Your task to perform on an android device: change the clock display to analog Image 0: 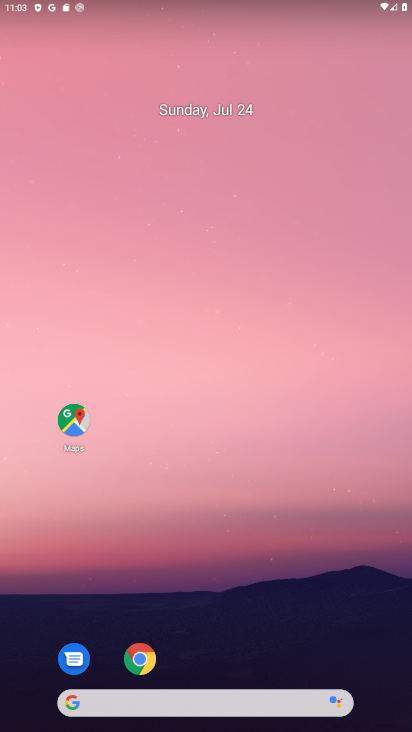
Step 0: drag from (267, 681) to (268, 6)
Your task to perform on an android device: change the clock display to analog Image 1: 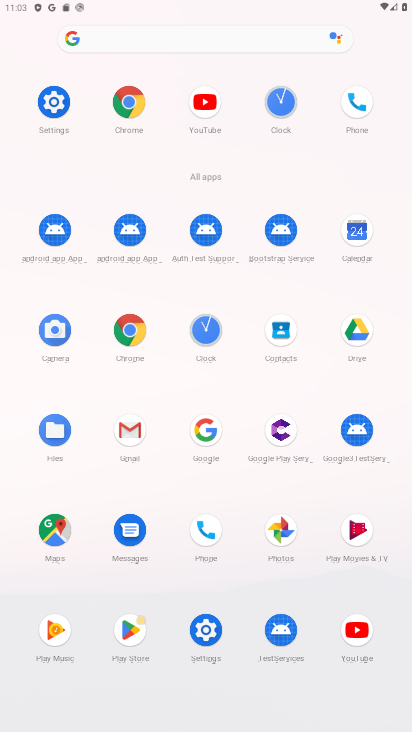
Step 1: click (199, 331)
Your task to perform on an android device: change the clock display to analog Image 2: 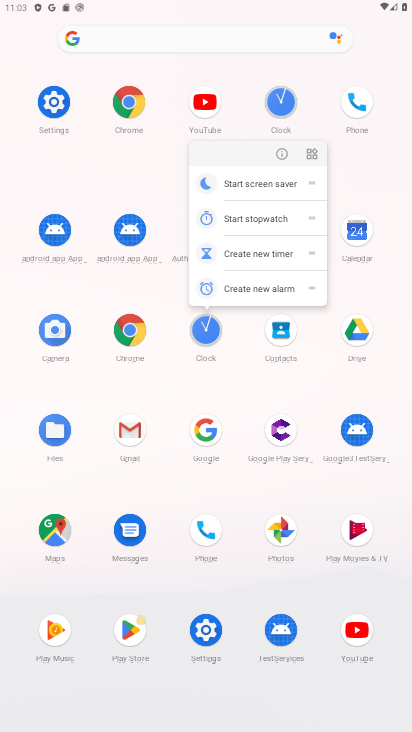
Step 2: click (293, 97)
Your task to perform on an android device: change the clock display to analog Image 3: 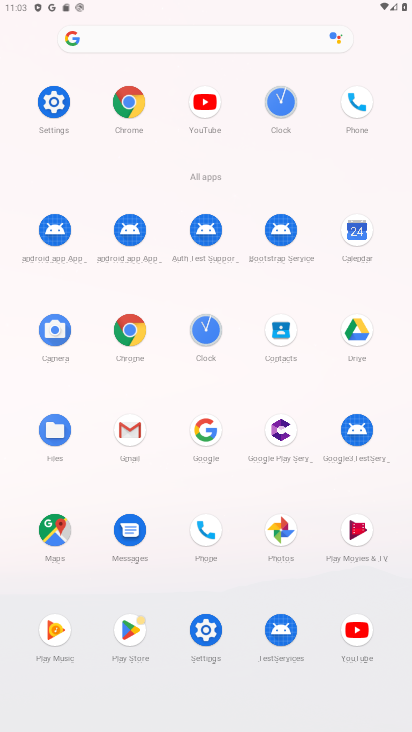
Step 3: click (295, 99)
Your task to perform on an android device: change the clock display to analog Image 4: 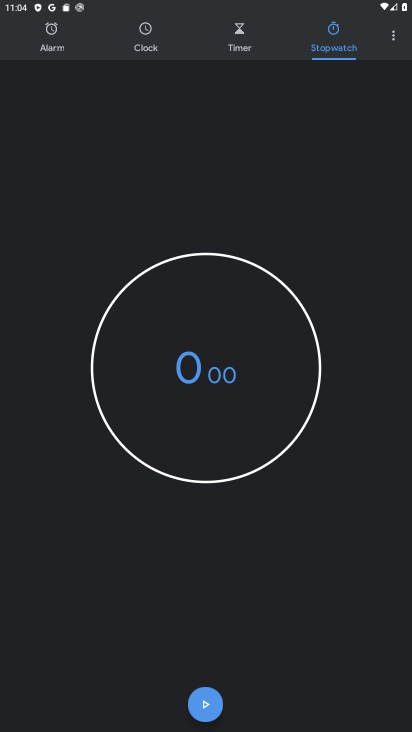
Step 4: click (407, 33)
Your task to perform on an android device: change the clock display to analog Image 5: 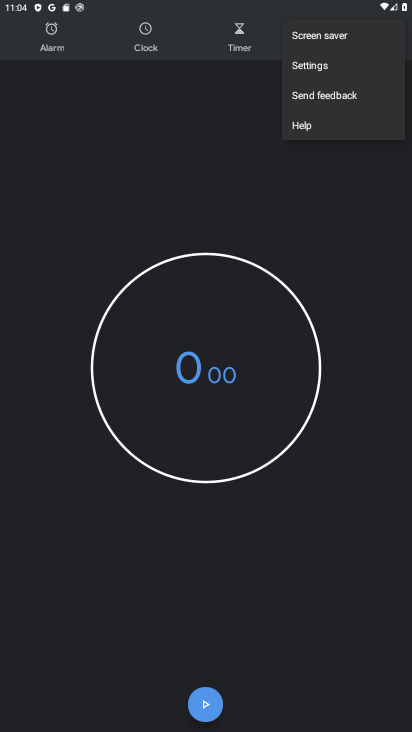
Step 5: click (321, 64)
Your task to perform on an android device: change the clock display to analog Image 6: 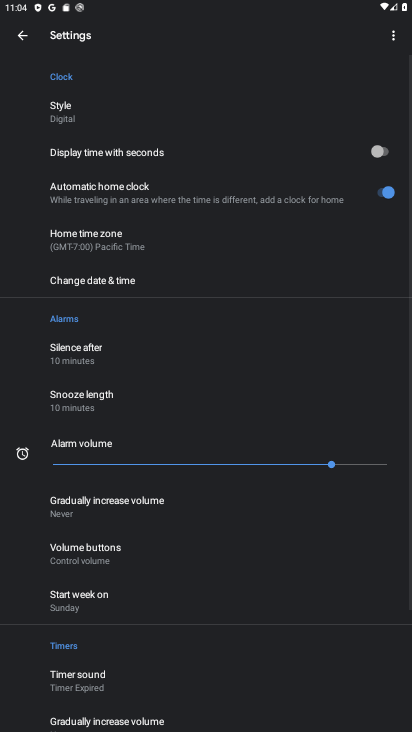
Step 6: click (76, 119)
Your task to perform on an android device: change the clock display to analog Image 7: 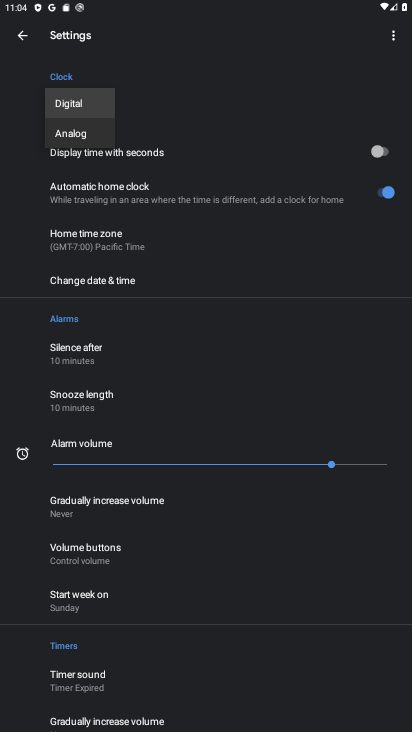
Step 7: click (94, 135)
Your task to perform on an android device: change the clock display to analog Image 8: 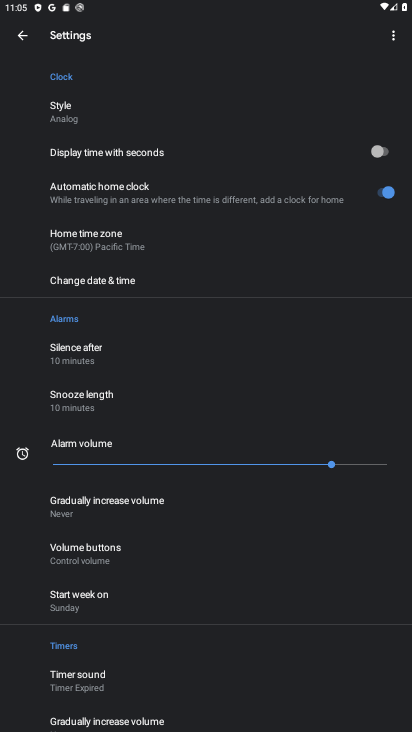
Step 8: task complete